Your task to perform on an android device: toggle notifications settings in the gmail app Image 0: 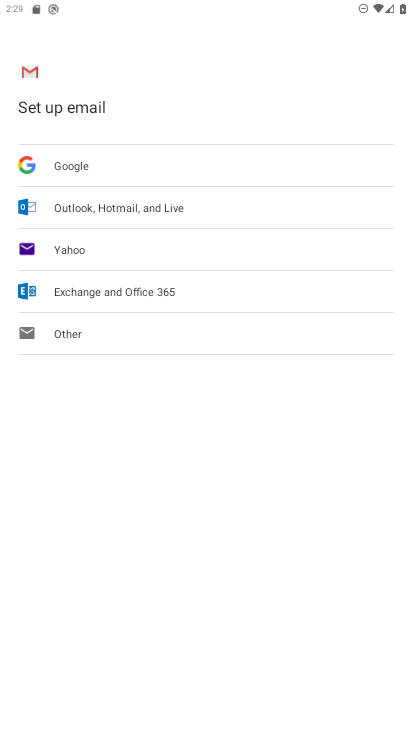
Step 0: press home button
Your task to perform on an android device: toggle notifications settings in the gmail app Image 1: 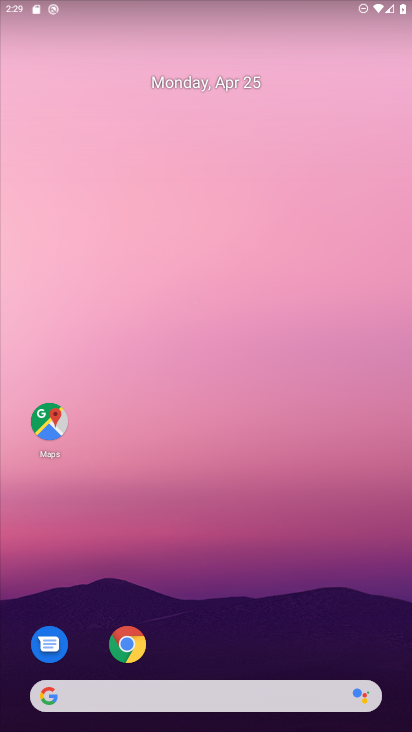
Step 1: drag from (246, 652) to (212, 373)
Your task to perform on an android device: toggle notifications settings in the gmail app Image 2: 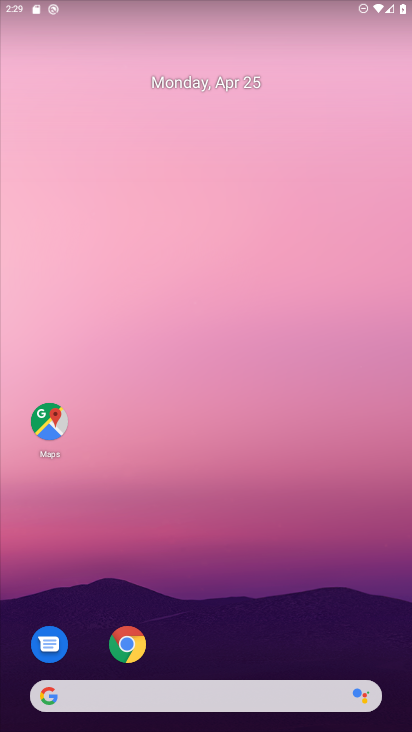
Step 2: drag from (238, 636) to (172, 144)
Your task to perform on an android device: toggle notifications settings in the gmail app Image 3: 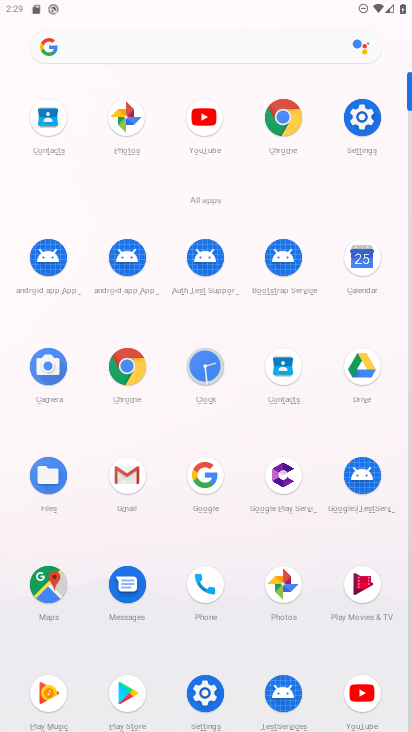
Step 3: click (139, 479)
Your task to perform on an android device: toggle notifications settings in the gmail app Image 4: 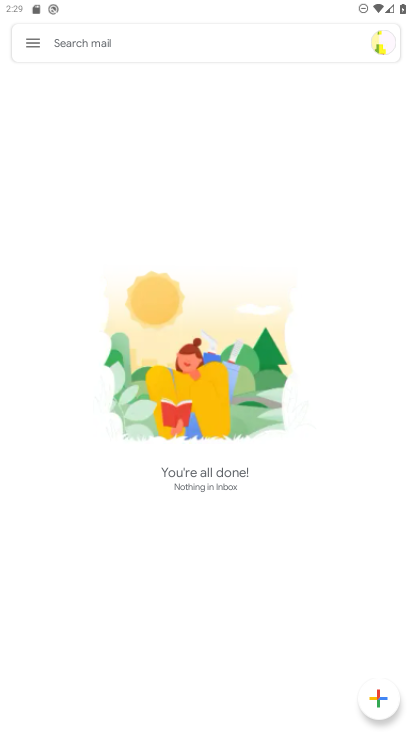
Step 4: click (32, 38)
Your task to perform on an android device: toggle notifications settings in the gmail app Image 5: 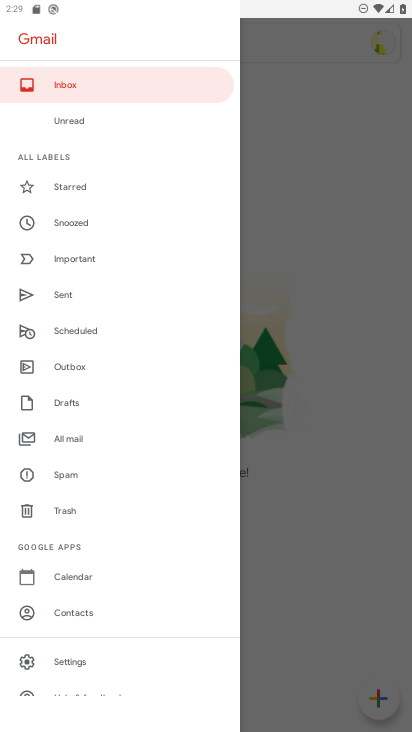
Step 5: drag from (132, 603) to (165, 110)
Your task to perform on an android device: toggle notifications settings in the gmail app Image 6: 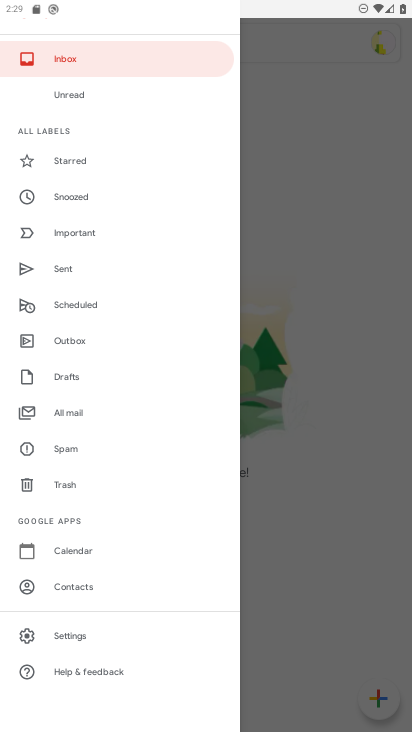
Step 6: click (145, 633)
Your task to perform on an android device: toggle notifications settings in the gmail app Image 7: 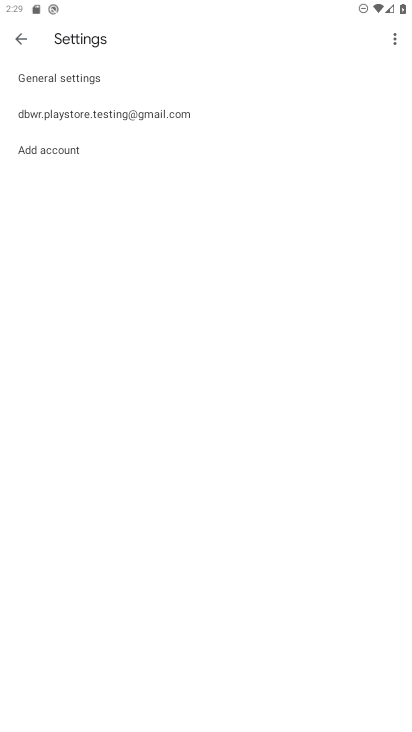
Step 7: click (229, 116)
Your task to perform on an android device: toggle notifications settings in the gmail app Image 8: 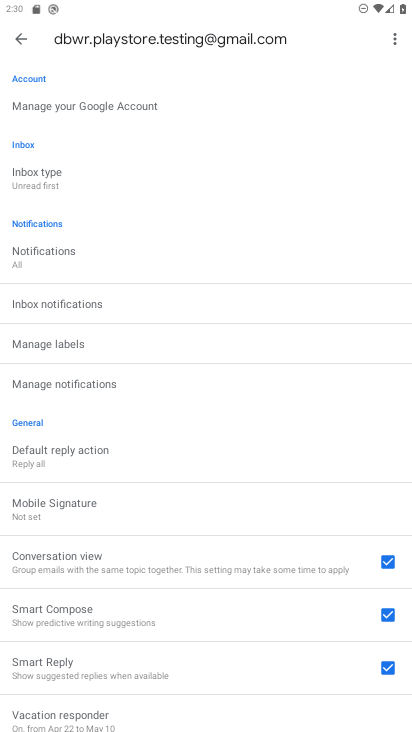
Step 8: drag from (179, 609) to (173, 491)
Your task to perform on an android device: toggle notifications settings in the gmail app Image 9: 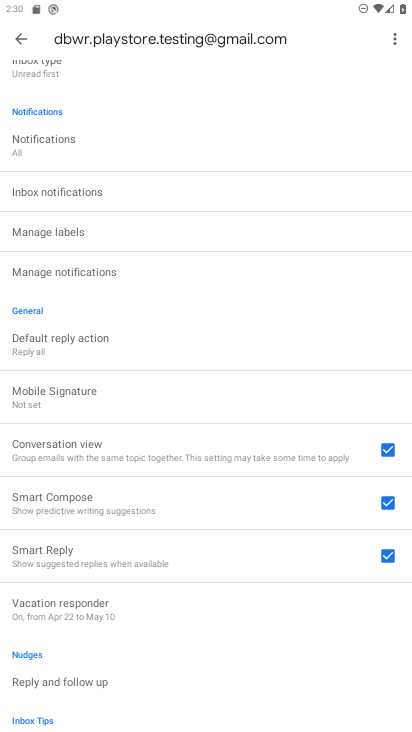
Step 9: click (150, 292)
Your task to perform on an android device: toggle notifications settings in the gmail app Image 10: 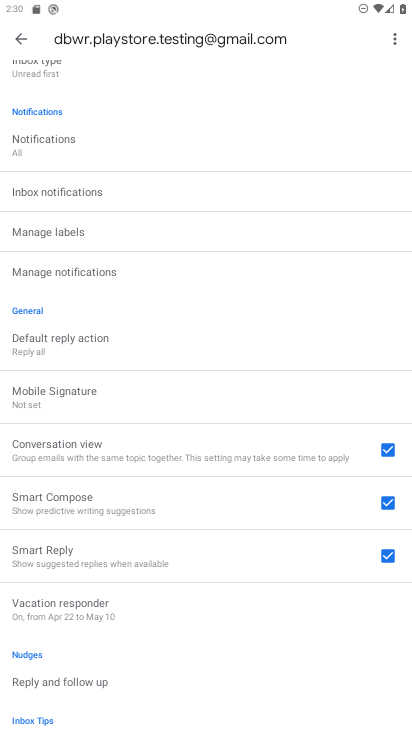
Step 10: click (145, 290)
Your task to perform on an android device: toggle notifications settings in the gmail app Image 11: 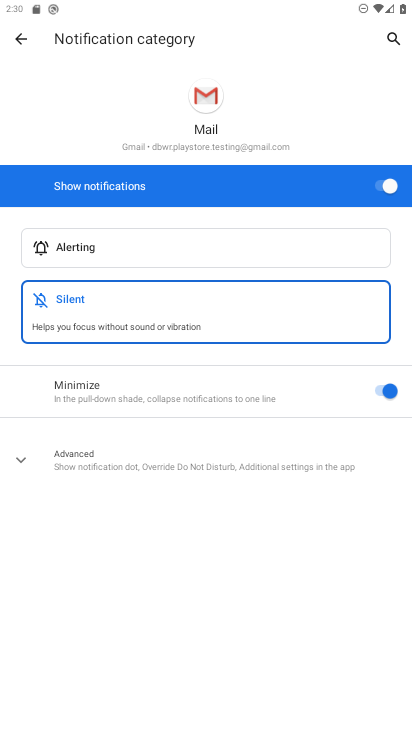
Step 11: click (171, 260)
Your task to perform on an android device: toggle notifications settings in the gmail app Image 12: 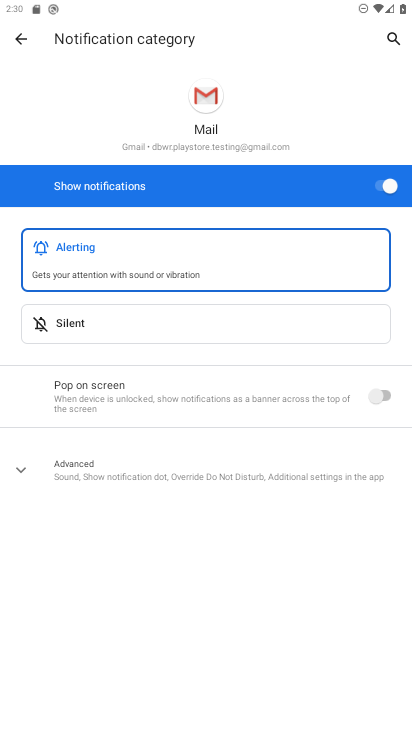
Step 12: click (373, 390)
Your task to perform on an android device: toggle notifications settings in the gmail app Image 13: 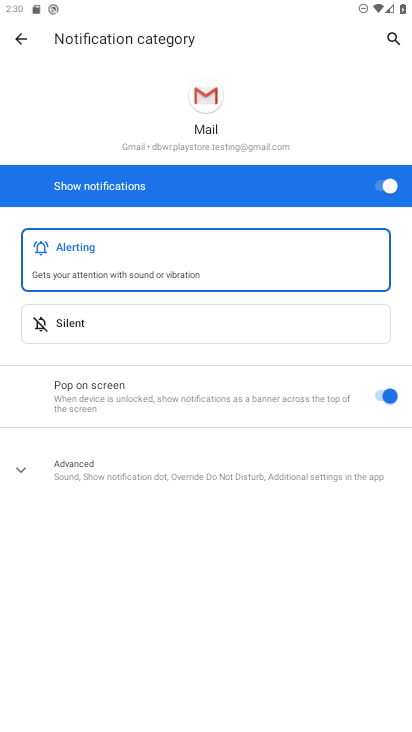
Step 13: task complete